Your task to perform on an android device: Go to sound settings Image 0: 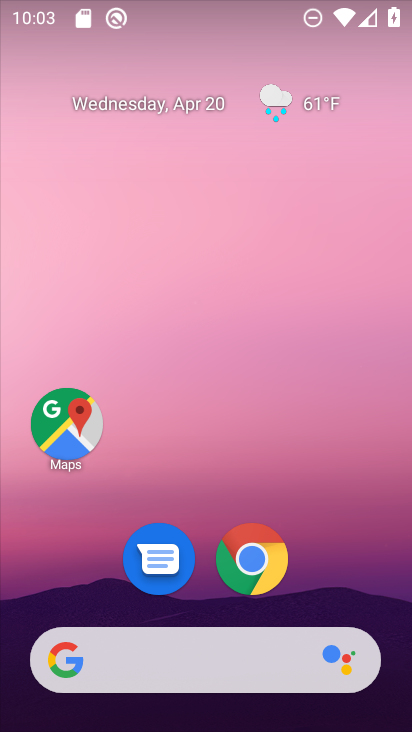
Step 0: drag from (387, 614) to (339, 158)
Your task to perform on an android device: Go to sound settings Image 1: 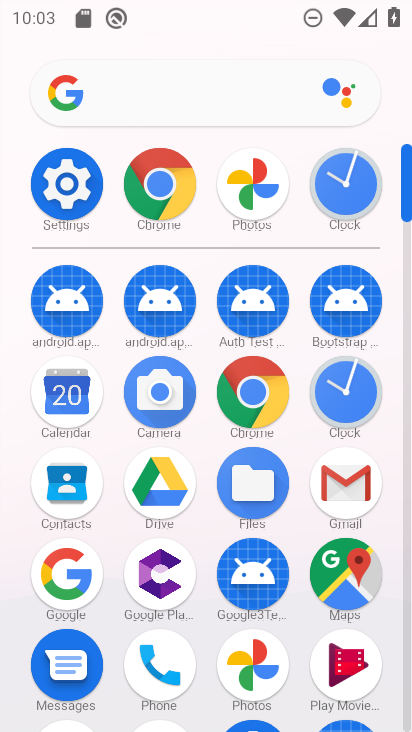
Step 1: click (406, 698)
Your task to perform on an android device: Go to sound settings Image 2: 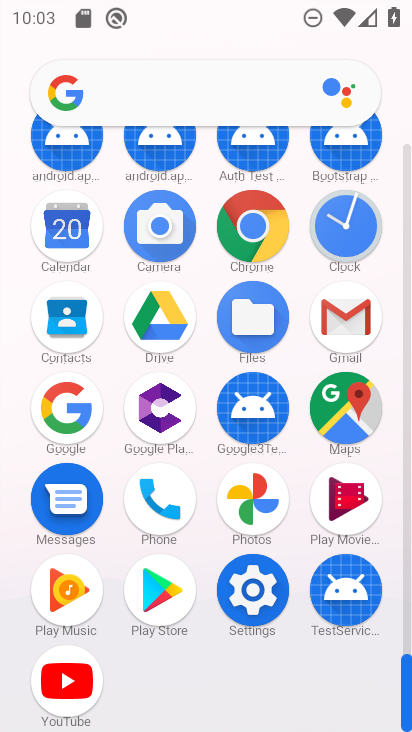
Step 2: click (251, 590)
Your task to perform on an android device: Go to sound settings Image 3: 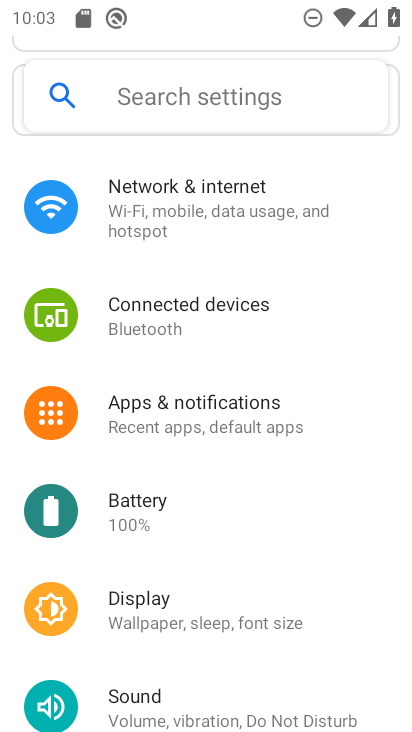
Step 3: drag from (310, 609) to (295, 362)
Your task to perform on an android device: Go to sound settings Image 4: 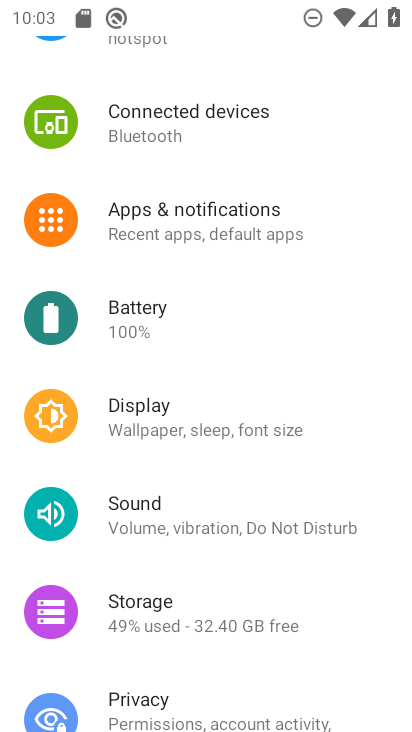
Step 4: click (118, 516)
Your task to perform on an android device: Go to sound settings Image 5: 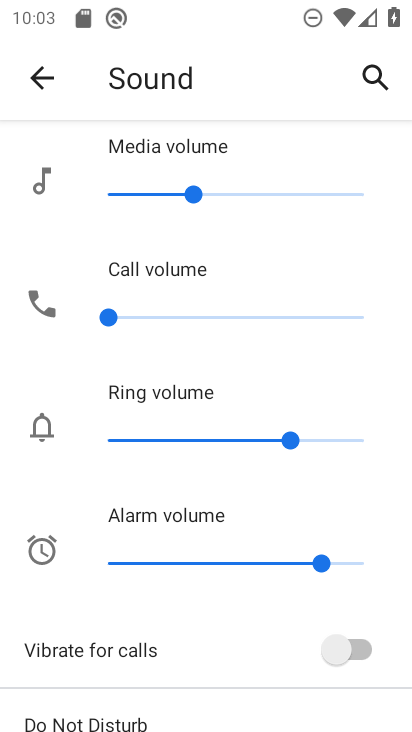
Step 5: drag from (257, 610) to (270, 343)
Your task to perform on an android device: Go to sound settings Image 6: 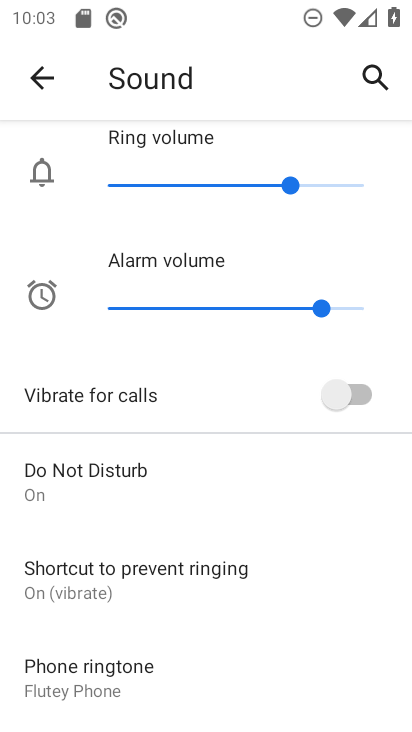
Step 6: drag from (278, 593) to (265, 251)
Your task to perform on an android device: Go to sound settings Image 7: 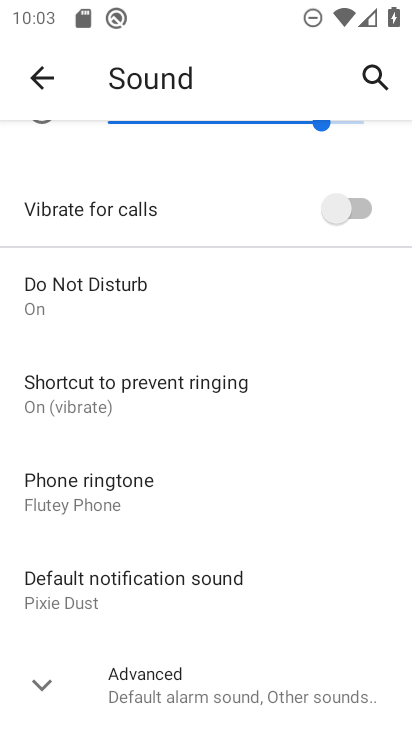
Step 7: click (48, 685)
Your task to perform on an android device: Go to sound settings Image 8: 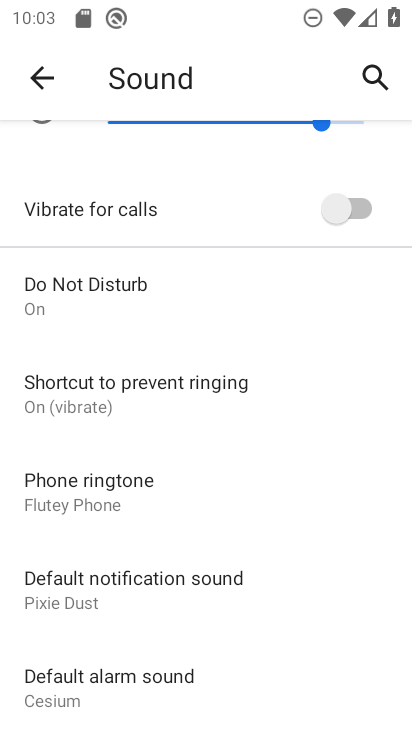
Step 8: task complete